Your task to perform on an android device: set the stopwatch Image 0: 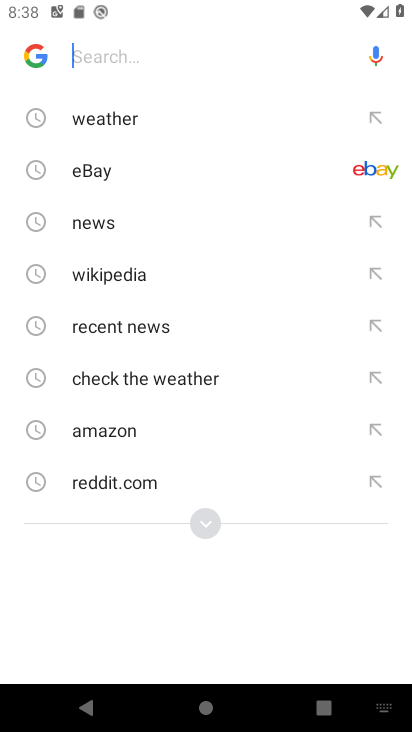
Step 0: press home button
Your task to perform on an android device: set the stopwatch Image 1: 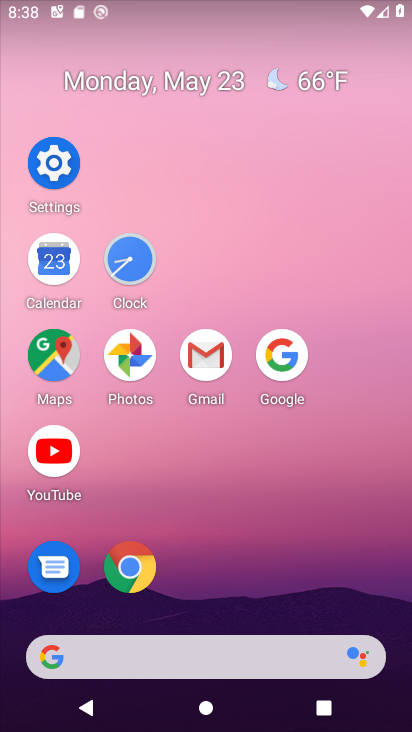
Step 1: click (145, 268)
Your task to perform on an android device: set the stopwatch Image 2: 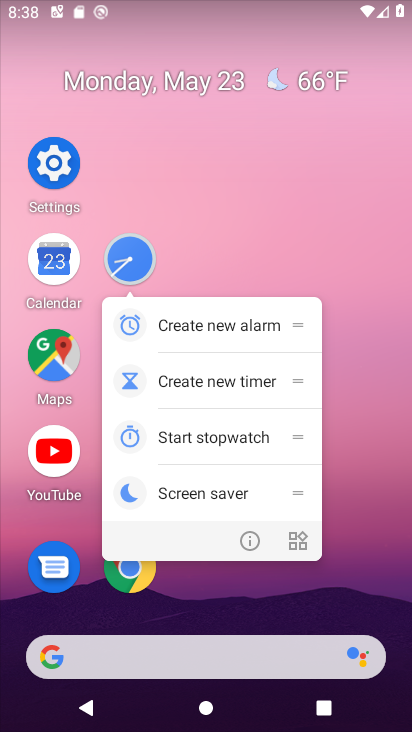
Step 2: click (156, 272)
Your task to perform on an android device: set the stopwatch Image 3: 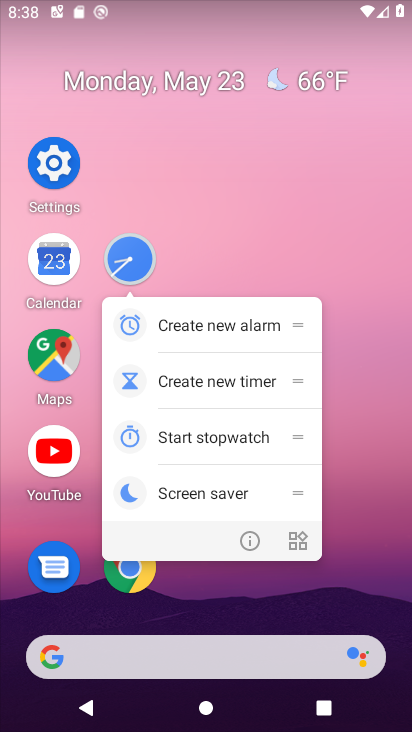
Step 3: click (138, 256)
Your task to perform on an android device: set the stopwatch Image 4: 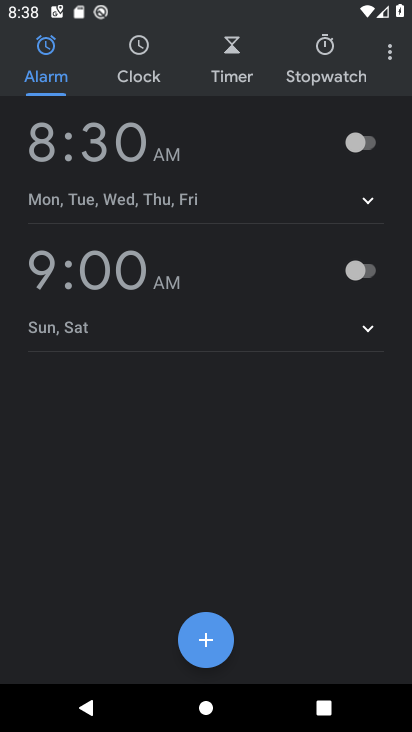
Step 4: click (308, 69)
Your task to perform on an android device: set the stopwatch Image 5: 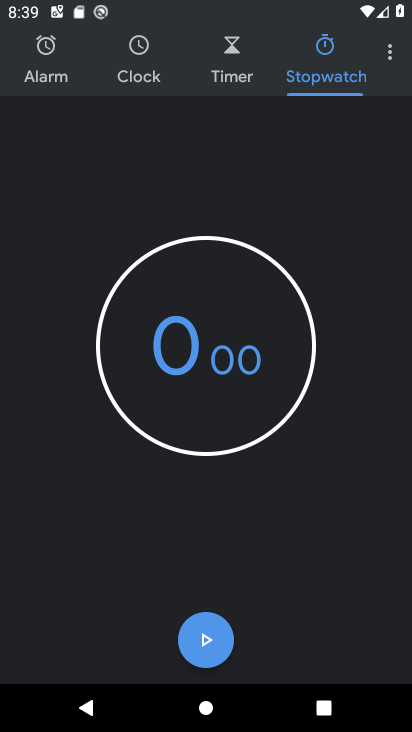
Step 5: click (203, 652)
Your task to perform on an android device: set the stopwatch Image 6: 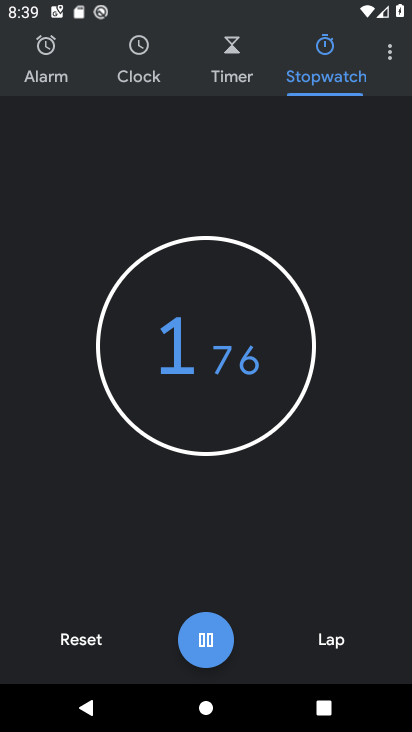
Step 6: task complete